Your task to perform on an android device: delete a single message in the gmail app Image 0: 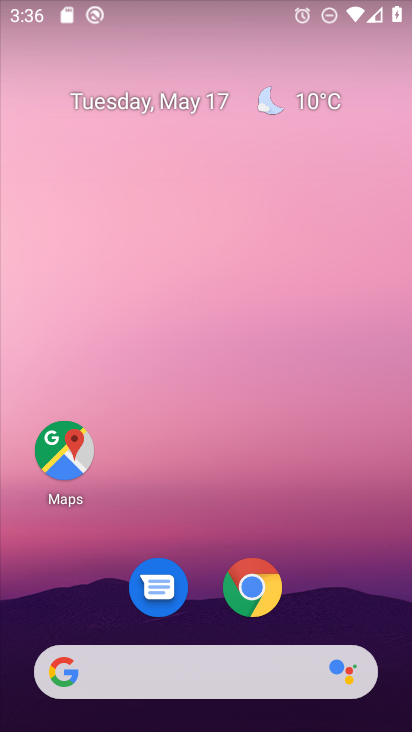
Step 0: drag from (323, 597) to (260, 5)
Your task to perform on an android device: delete a single message in the gmail app Image 1: 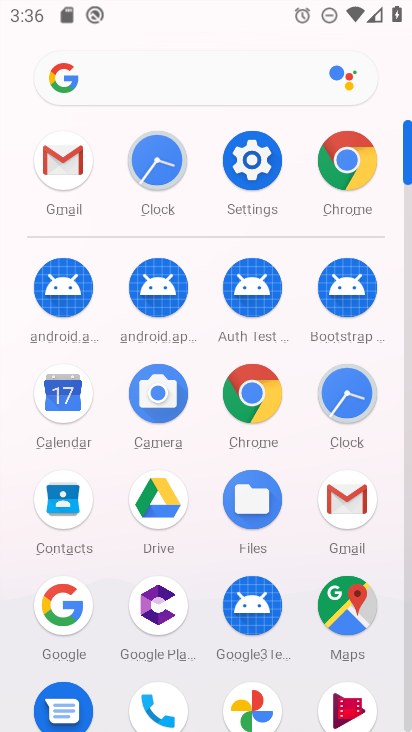
Step 1: drag from (6, 520) to (33, 146)
Your task to perform on an android device: delete a single message in the gmail app Image 2: 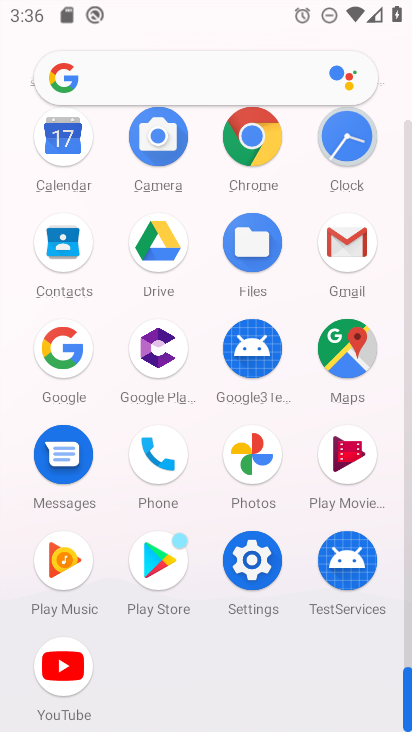
Step 2: click (338, 234)
Your task to perform on an android device: delete a single message in the gmail app Image 3: 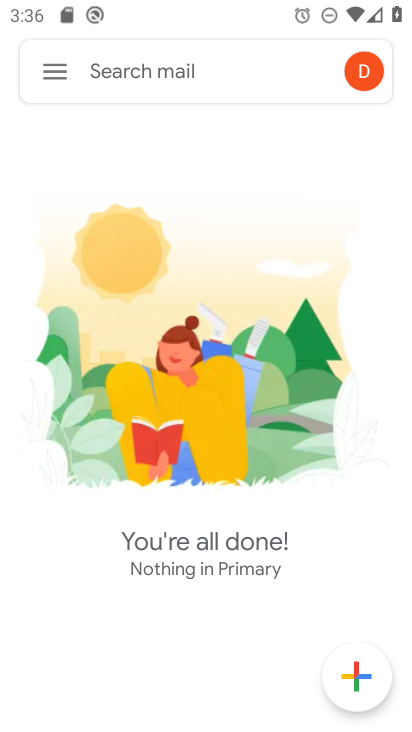
Step 3: click (68, 64)
Your task to perform on an android device: delete a single message in the gmail app Image 4: 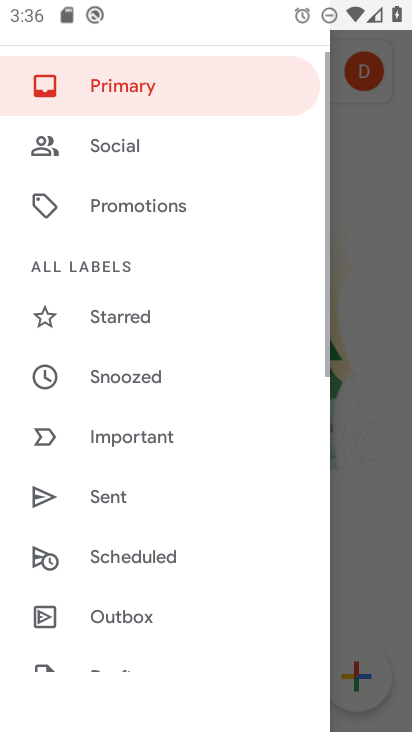
Step 4: drag from (183, 226) to (199, 571)
Your task to perform on an android device: delete a single message in the gmail app Image 5: 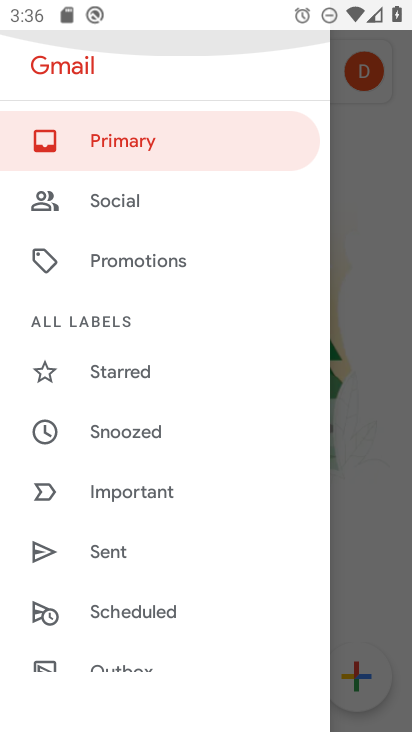
Step 5: drag from (199, 570) to (252, 172)
Your task to perform on an android device: delete a single message in the gmail app Image 6: 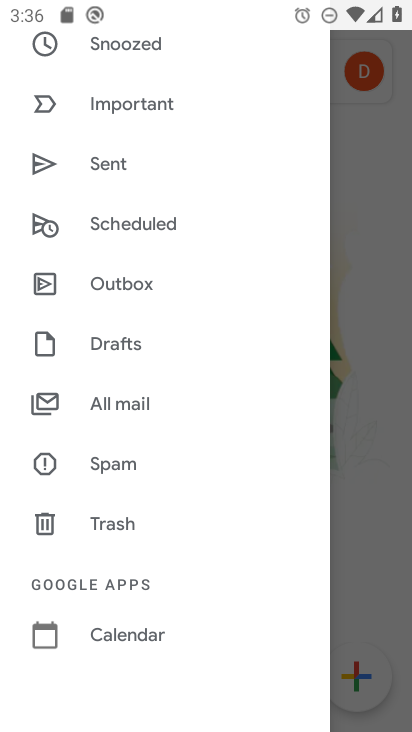
Step 6: drag from (210, 537) to (244, 146)
Your task to perform on an android device: delete a single message in the gmail app Image 7: 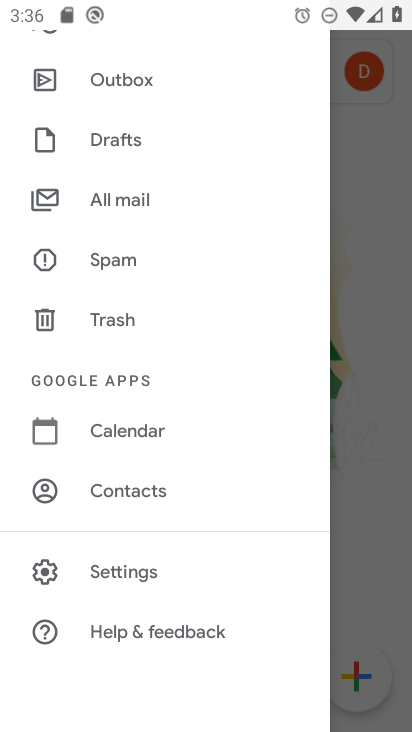
Step 7: click (144, 202)
Your task to perform on an android device: delete a single message in the gmail app Image 8: 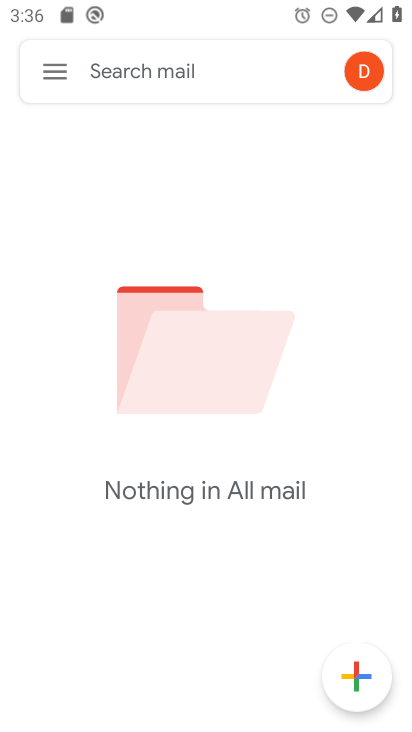
Step 8: click (52, 71)
Your task to perform on an android device: delete a single message in the gmail app Image 9: 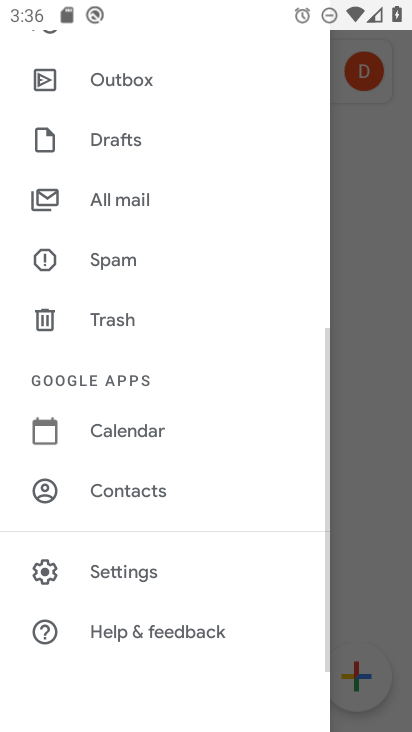
Step 9: drag from (217, 145) to (215, 591)
Your task to perform on an android device: delete a single message in the gmail app Image 10: 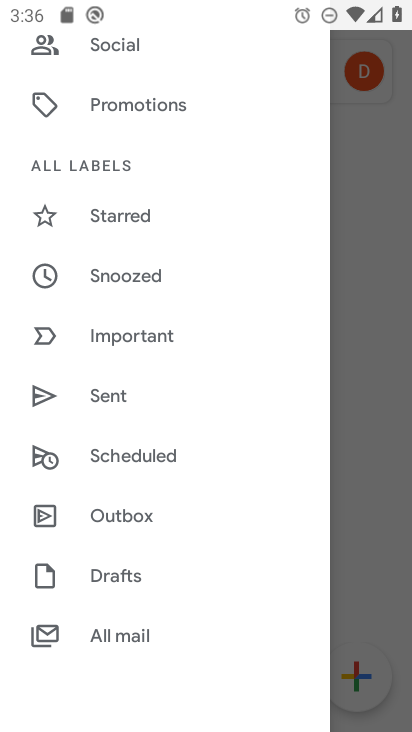
Step 10: click (157, 209)
Your task to perform on an android device: delete a single message in the gmail app Image 11: 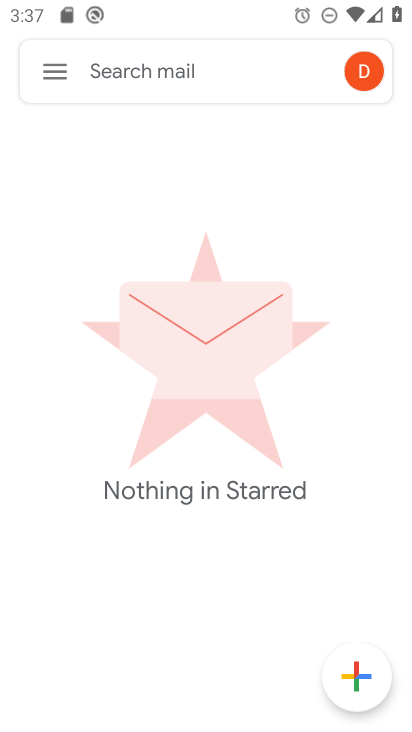
Step 11: task complete